Your task to perform on an android device: change the clock display to show seconds Image 0: 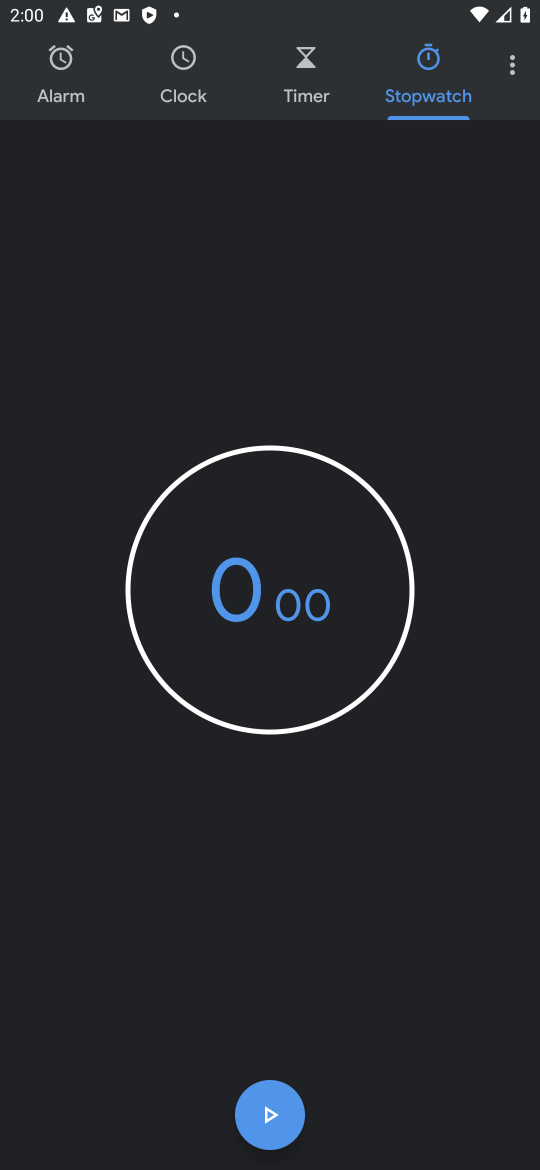
Step 0: task complete